Your task to perform on an android device: Open the calendar app, open the side menu, and click the "Day" option Image 0: 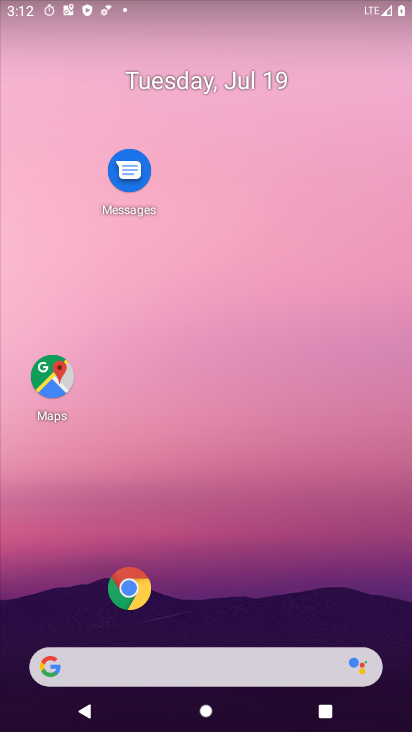
Step 0: drag from (40, 676) to (381, 100)
Your task to perform on an android device: Open the calendar app, open the side menu, and click the "Day" option Image 1: 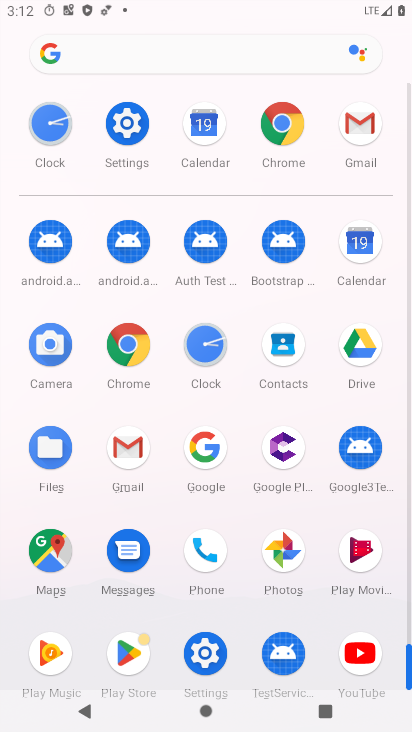
Step 1: click (363, 254)
Your task to perform on an android device: Open the calendar app, open the side menu, and click the "Day" option Image 2: 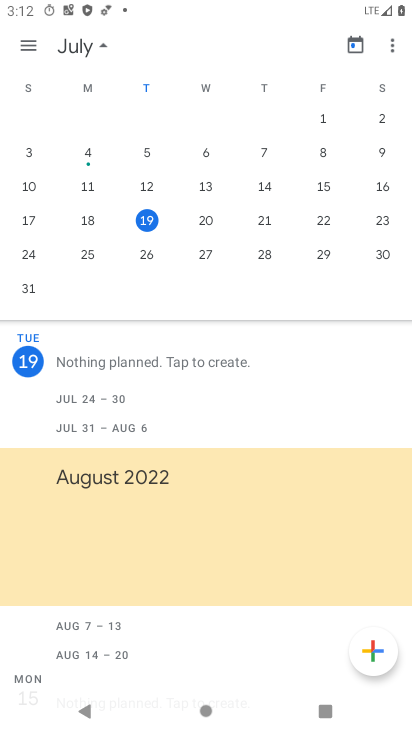
Step 2: click (26, 38)
Your task to perform on an android device: Open the calendar app, open the side menu, and click the "Day" option Image 3: 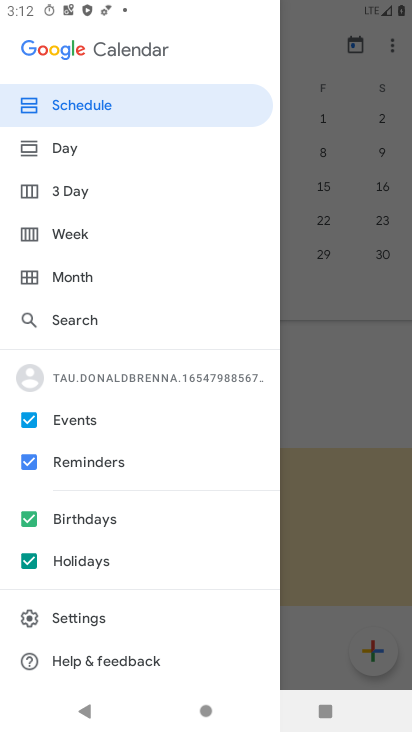
Step 3: click (76, 150)
Your task to perform on an android device: Open the calendar app, open the side menu, and click the "Day" option Image 4: 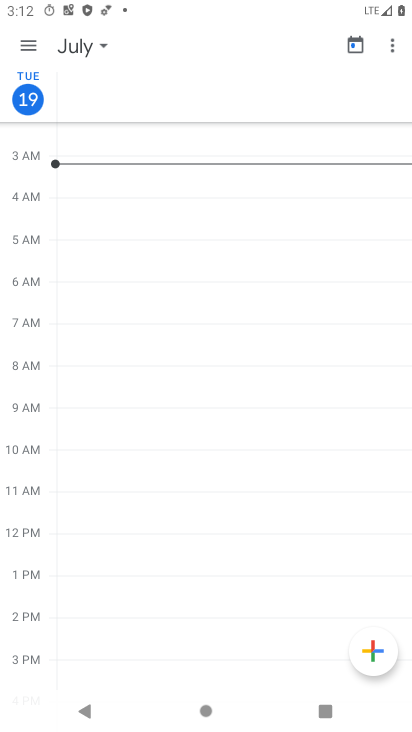
Step 4: task complete